Your task to perform on an android device: open a bookmark in the chrome app Image 0: 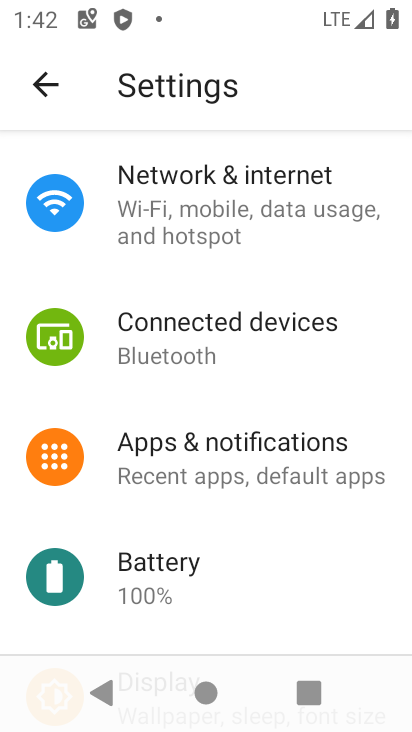
Step 0: press home button
Your task to perform on an android device: open a bookmark in the chrome app Image 1: 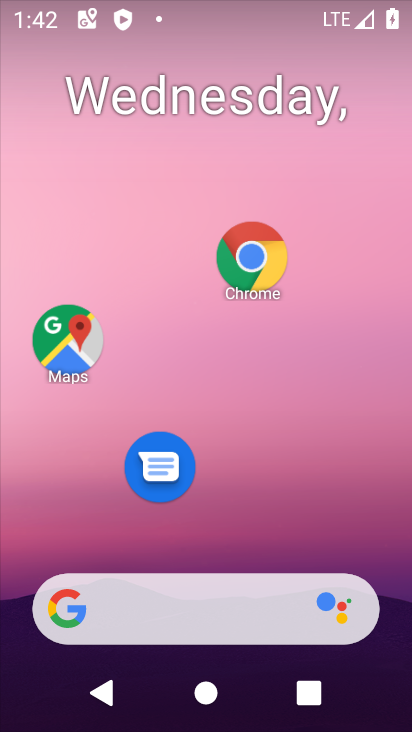
Step 1: click (250, 254)
Your task to perform on an android device: open a bookmark in the chrome app Image 2: 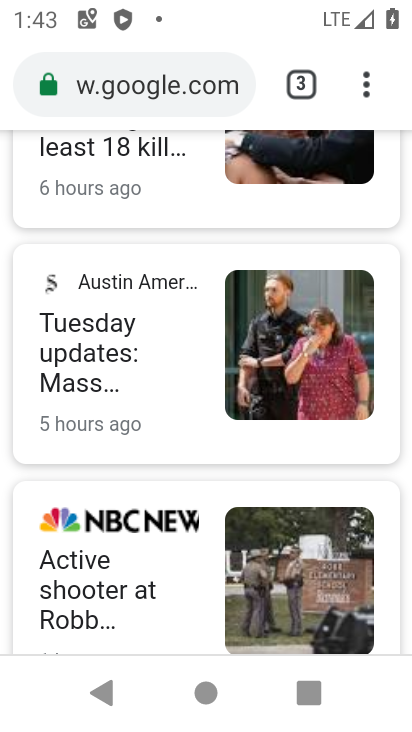
Step 2: task complete